Your task to perform on an android device: Search for 'The Girl on the Train' on Goodreads. Image 0: 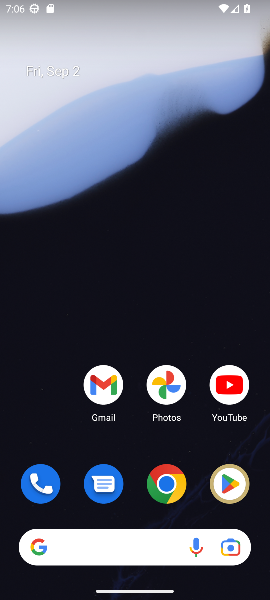
Step 0: click (170, 483)
Your task to perform on an android device: Search for 'The Girl on the Train' on Goodreads. Image 1: 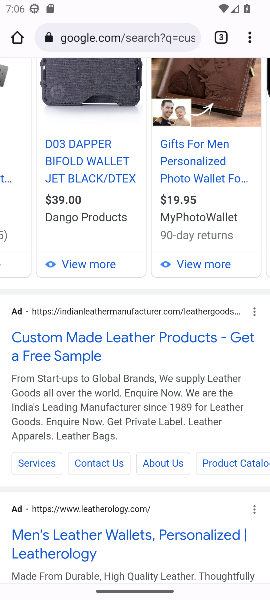
Step 1: click (124, 33)
Your task to perform on an android device: Search for 'The Girl on the Train' on Goodreads. Image 2: 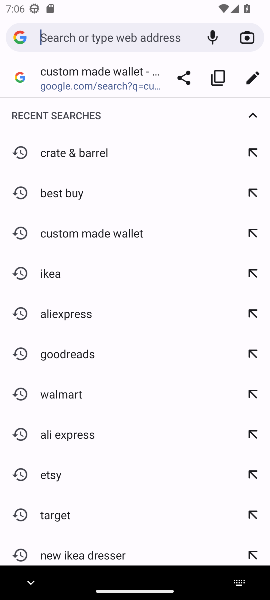
Step 2: type "Goodreads"
Your task to perform on an android device: Search for 'The Girl on the Train' on Goodreads. Image 3: 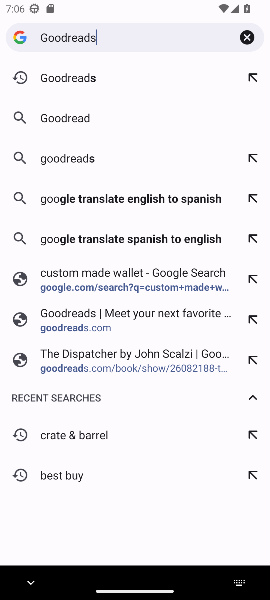
Step 3: press enter
Your task to perform on an android device: Search for 'The Girl on the Train' on Goodreads. Image 4: 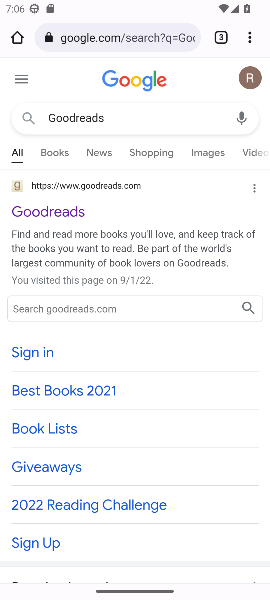
Step 4: click (72, 209)
Your task to perform on an android device: Search for 'The Girl on the Train' on Goodreads. Image 5: 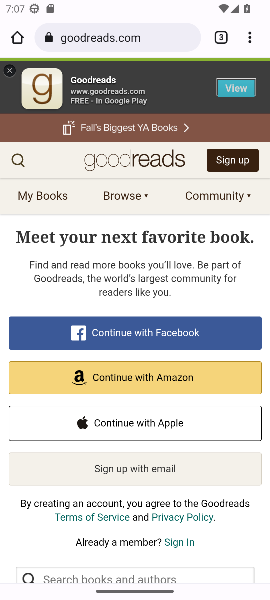
Step 5: click (20, 161)
Your task to perform on an android device: Search for 'The Girl on the Train' on Goodreads. Image 6: 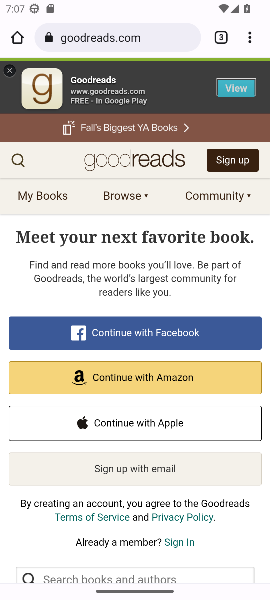
Step 6: click (17, 160)
Your task to perform on an android device: Search for 'The Girl on the Train' on Goodreads. Image 7: 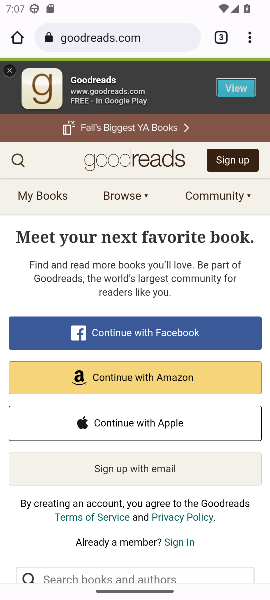
Step 7: click (15, 163)
Your task to perform on an android device: Search for 'The Girl on the Train' on Goodreads. Image 8: 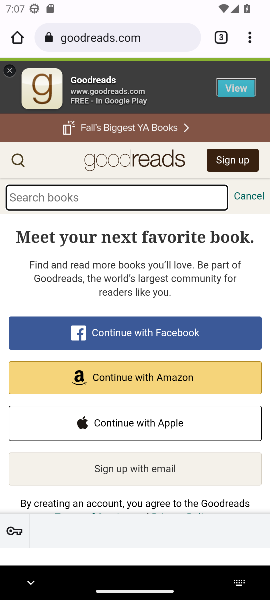
Step 8: type "The Girl on the Train"
Your task to perform on an android device: Search for 'The Girl on the Train' on Goodreads. Image 9: 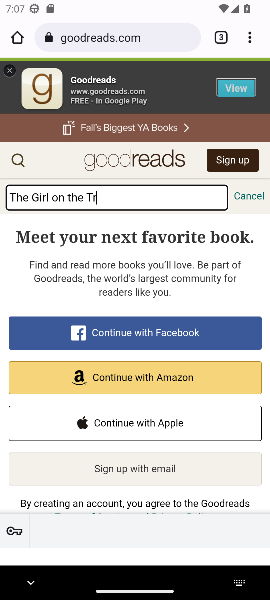
Step 9: press enter
Your task to perform on an android device: Search for 'The Girl on the Train' on Goodreads. Image 10: 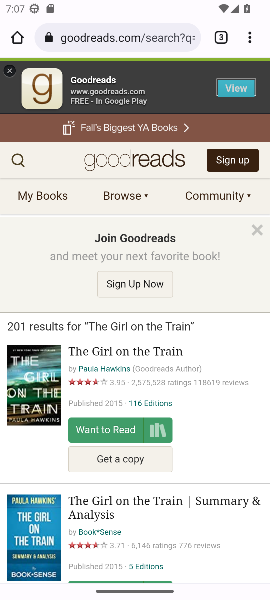
Step 10: task complete